Your task to perform on an android device: Search for flights from Barcelona to Boston Image 0: 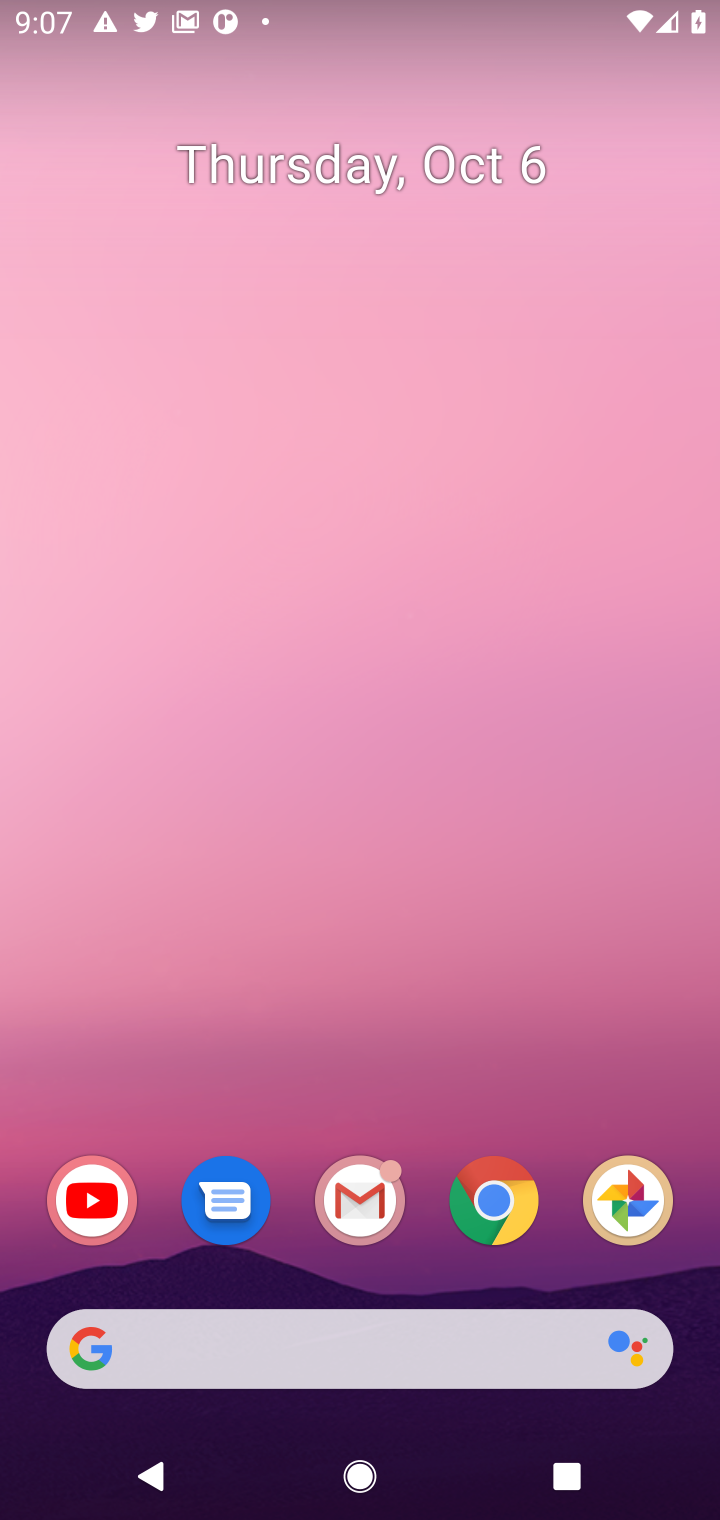
Step 0: click (510, 1199)
Your task to perform on an android device: Search for flights from Barcelona to Boston Image 1: 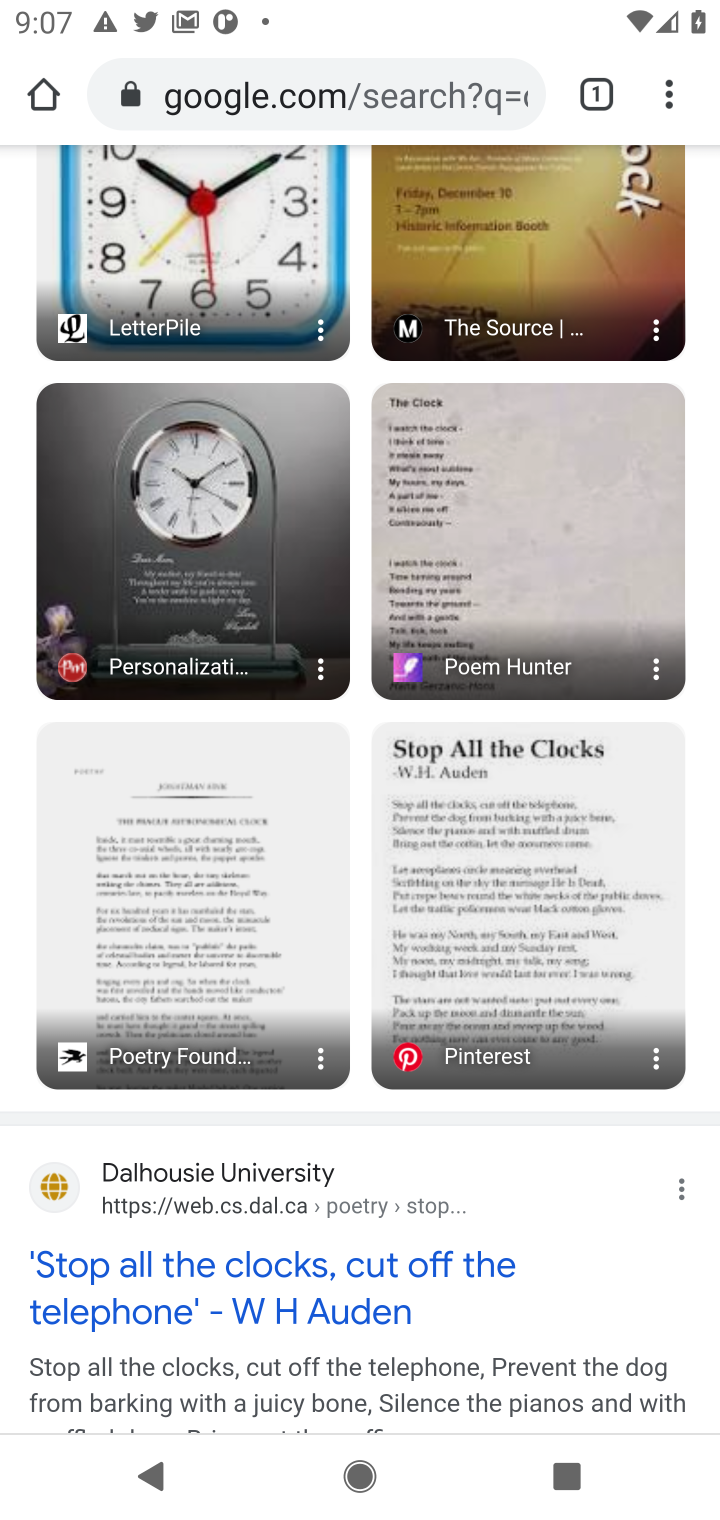
Step 1: click (301, 91)
Your task to perform on an android device: Search for flights from Barcelona to Boston Image 2: 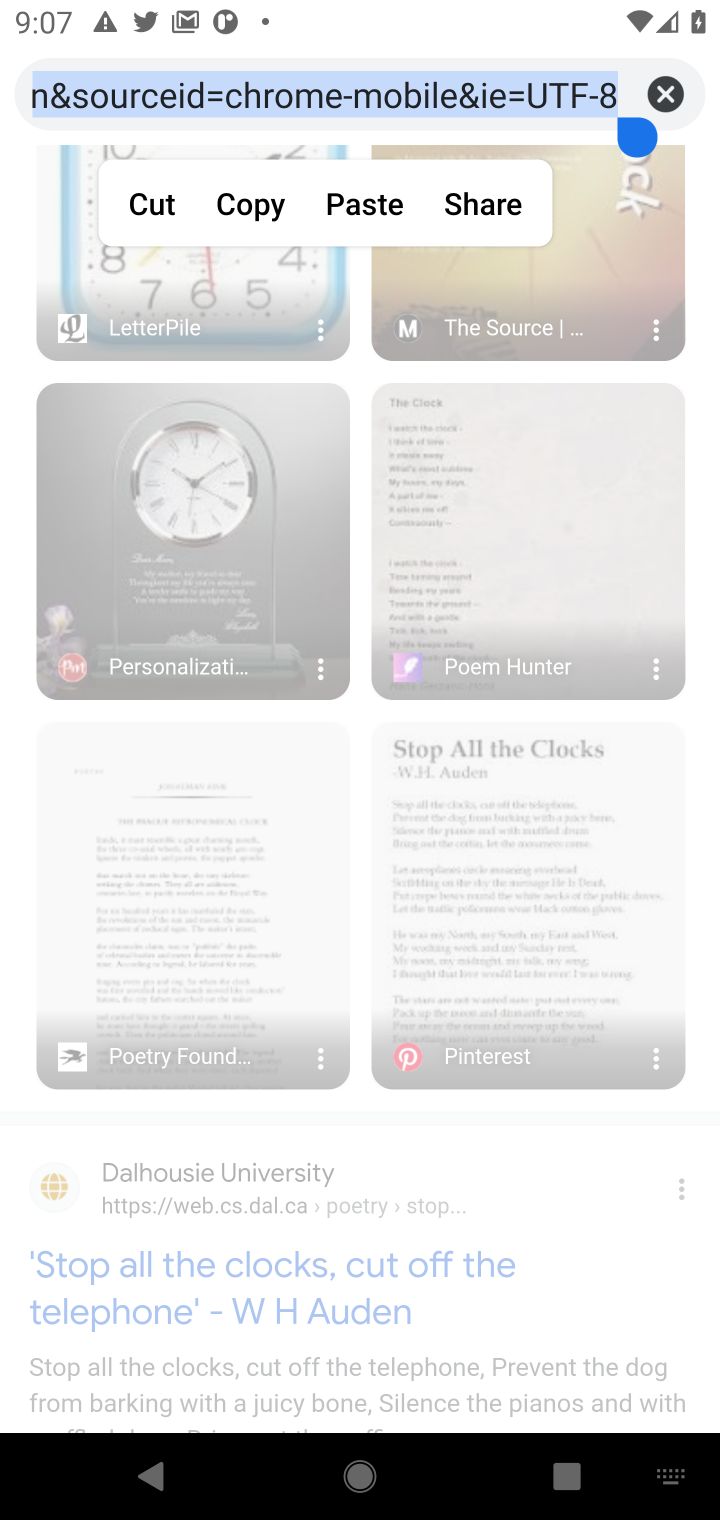
Step 2: click (654, 81)
Your task to perform on an android device: Search for flights from Barcelona to Boston Image 3: 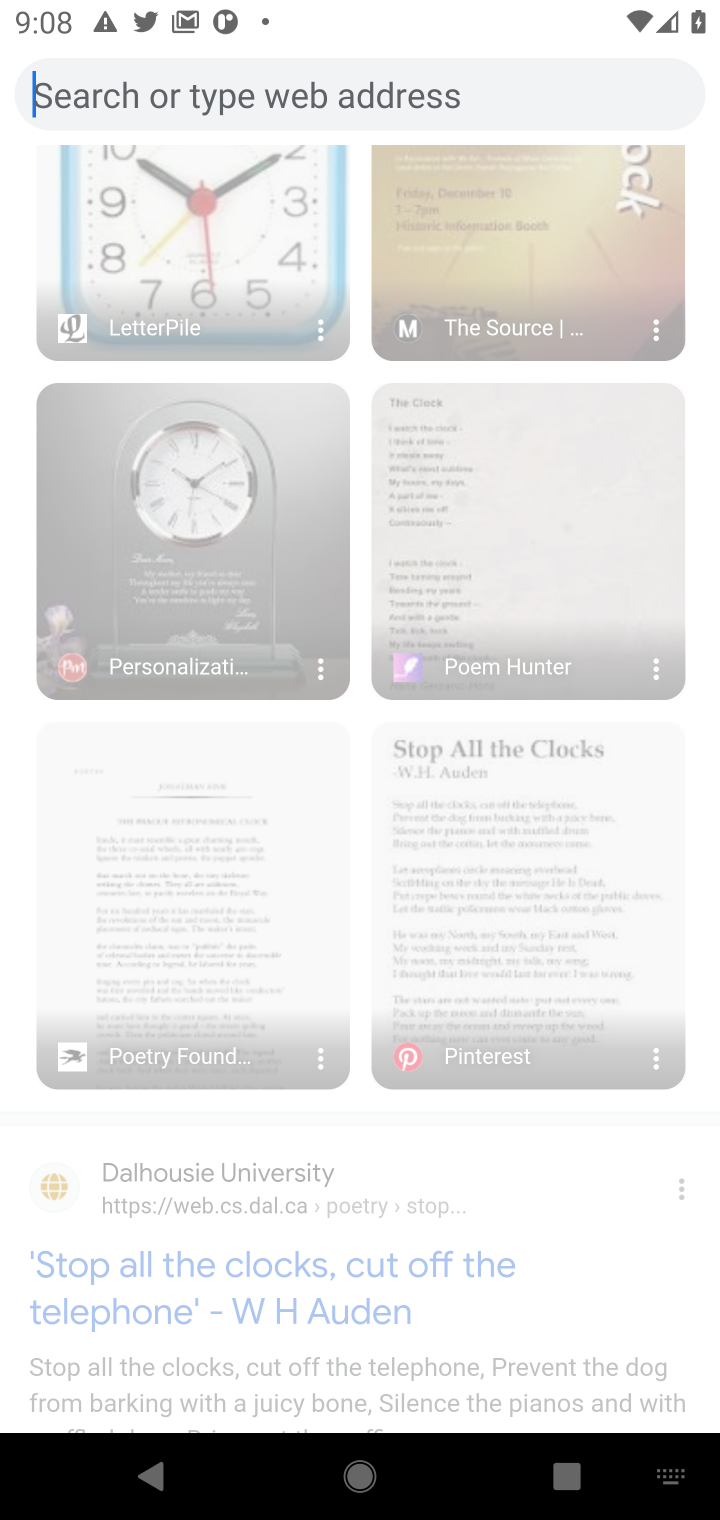
Step 3: type "flight from barcelona to boston"
Your task to perform on an android device: Search for flights from Barcelona to Boston Image 4: 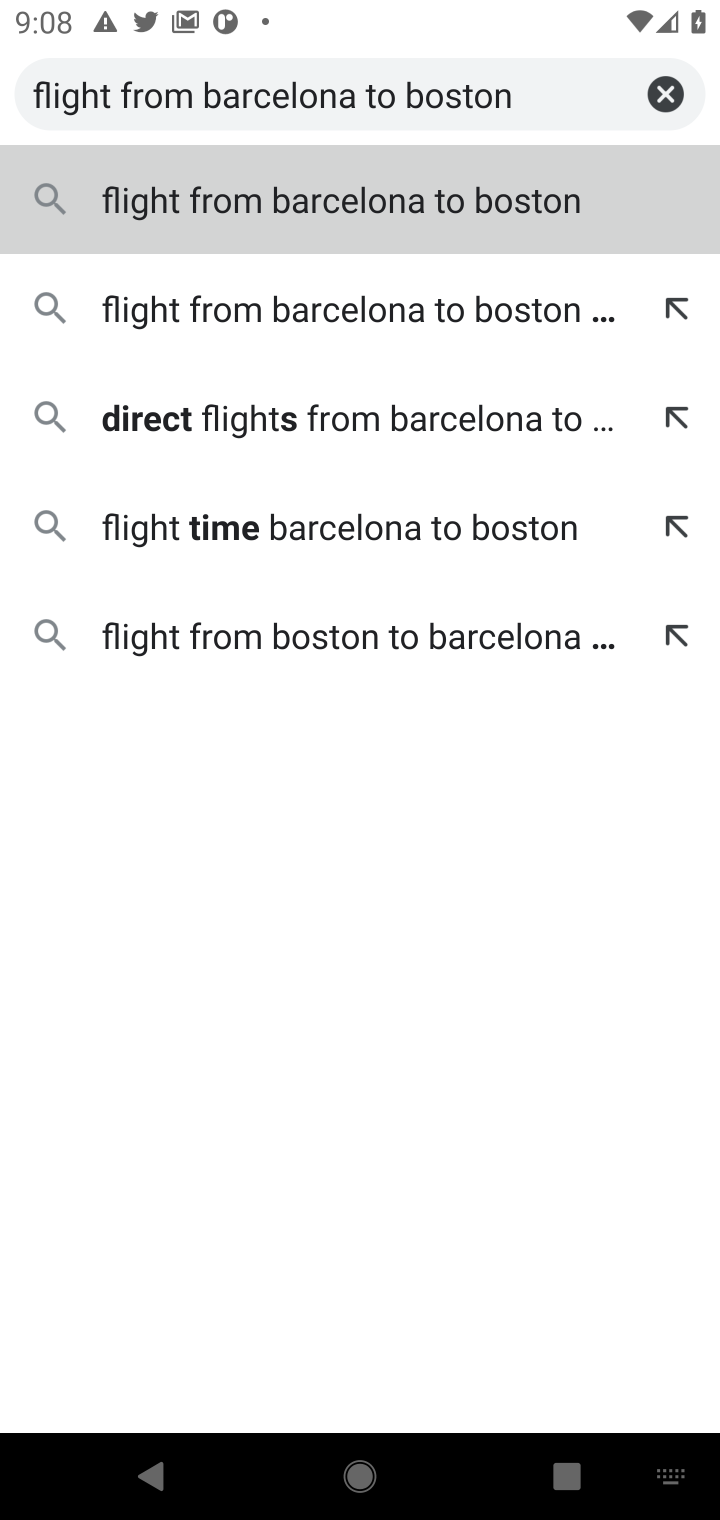
Step 4: click (406, 200)
Your task to perform on an android device: Search for flights from Barcelona to Boston Image 5: 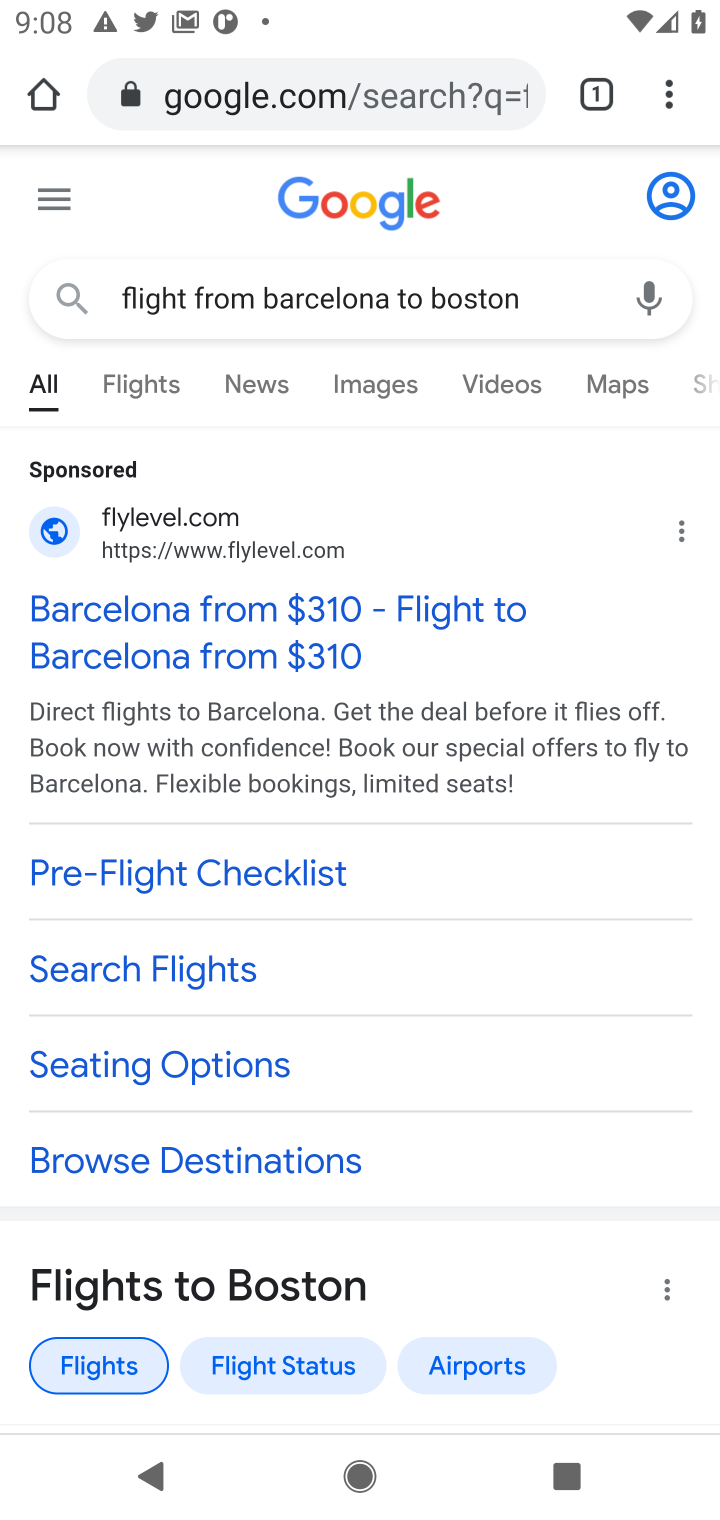
Step 5: click (195, 966)
Your task to perform on an android device: Search for flights from Barcelona to Boston Image 6: 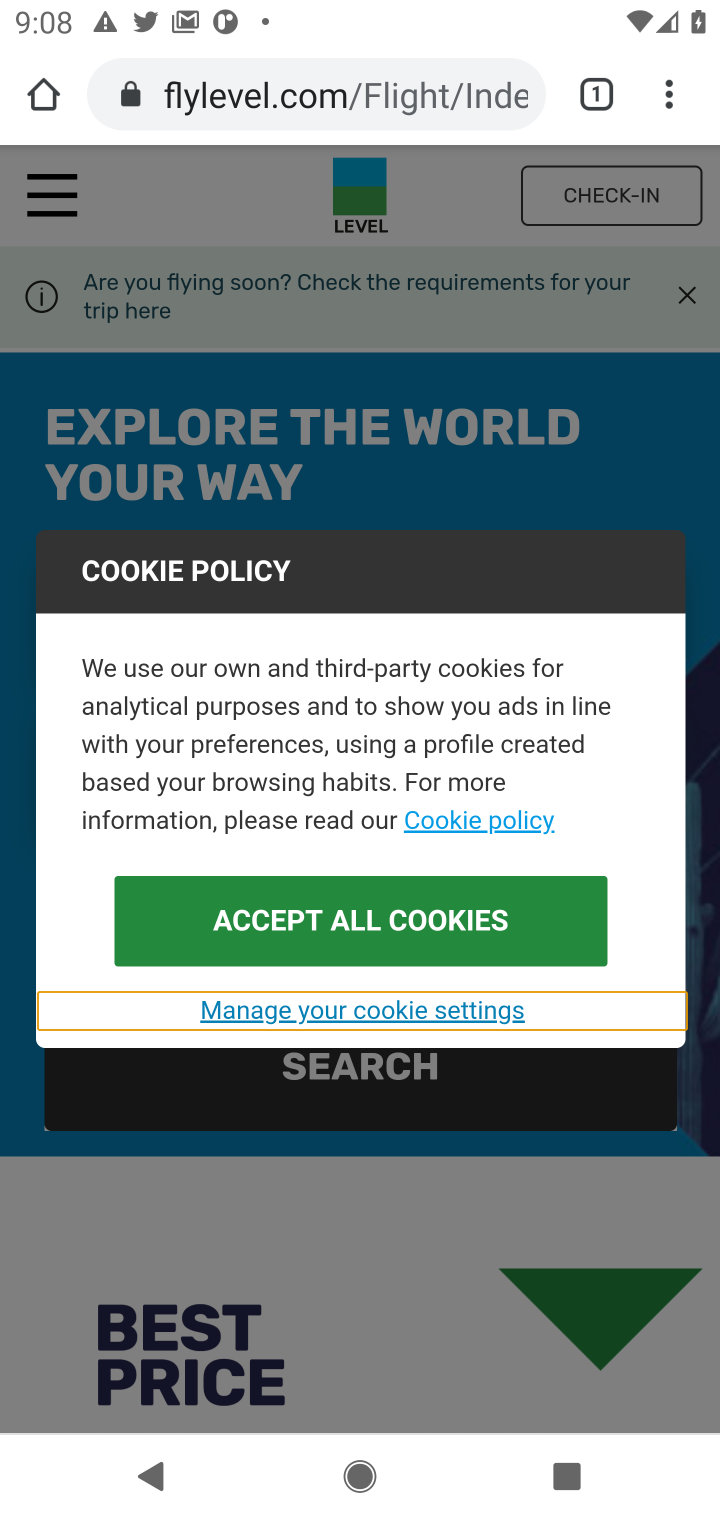
Step 6: click (360, 950)
Your task to perform on an android device: Search for flights from Barcelona to Boston Image 7: 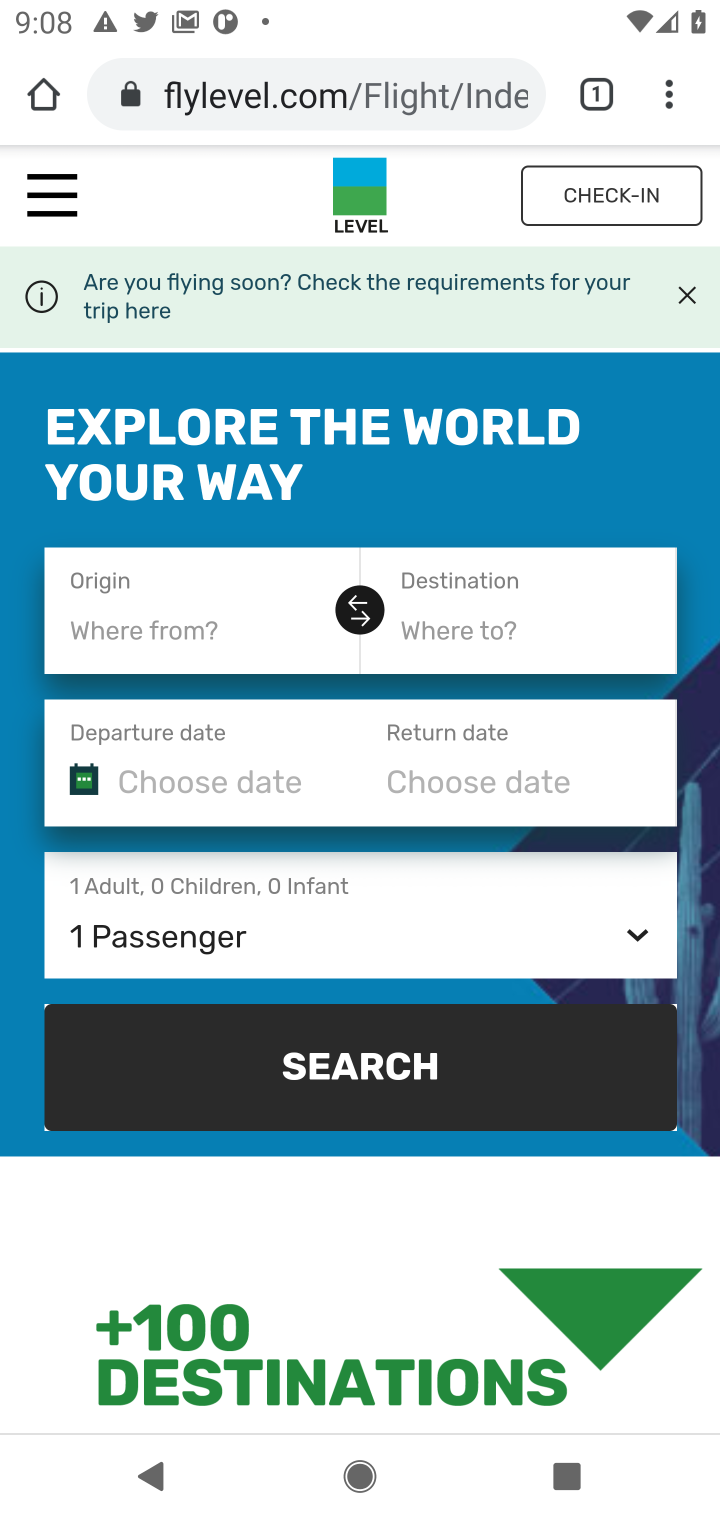
Step 7: click (174, 625)
Your task to perform on an android device: Search for flights from Barcelona to Boston Image 8: 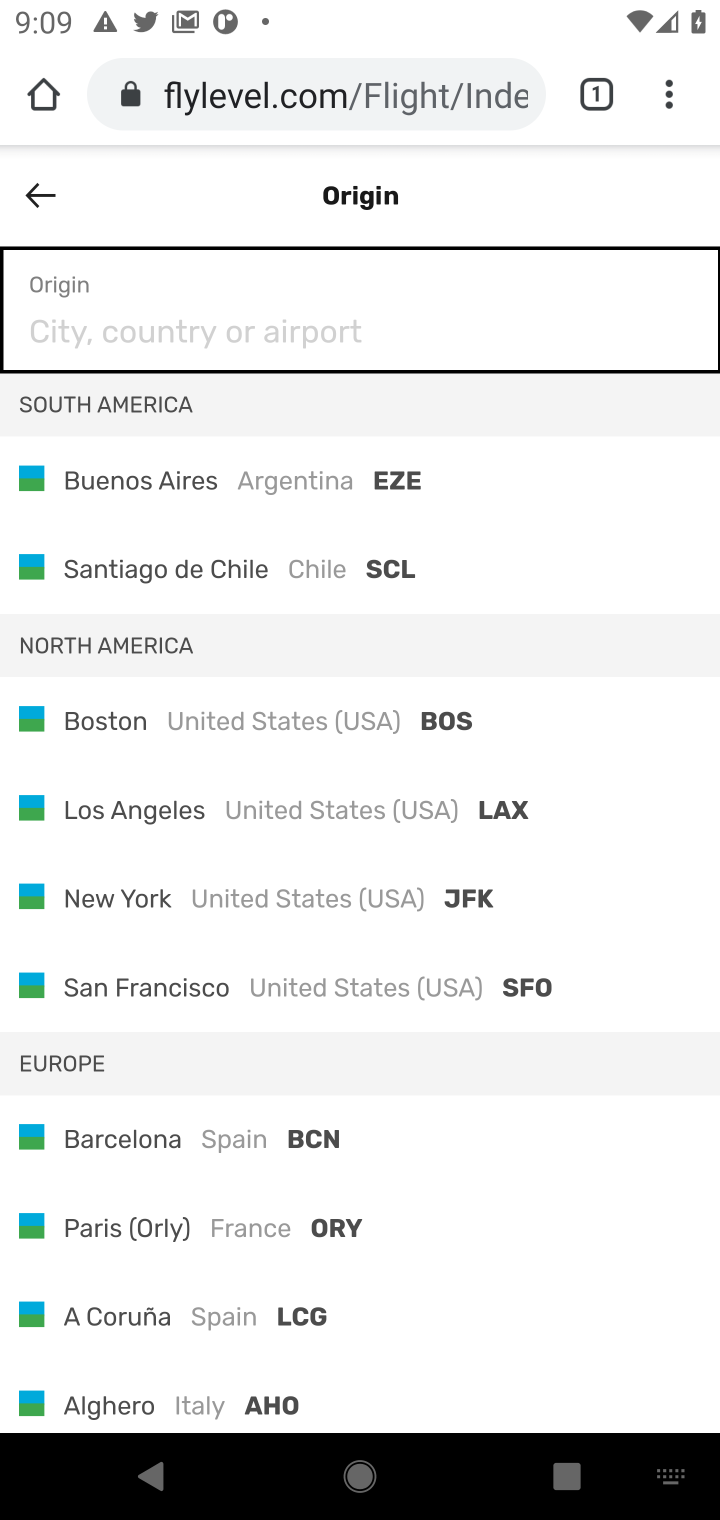
Step 8: type "barcelona"
Your task to perform on an android device: Search for flights from Barcelona to Boston Image 9: 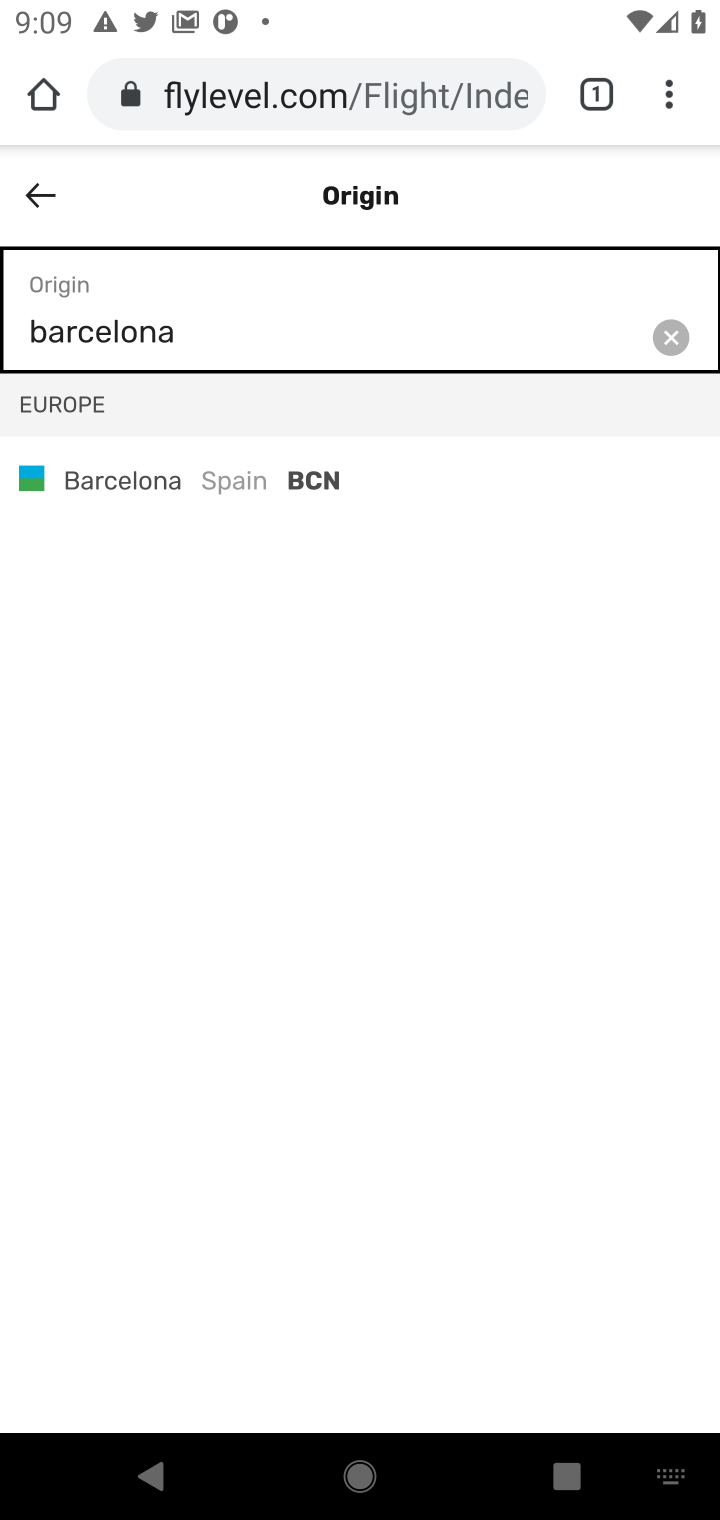
Step 9: click (219, 483)
Your task to perform on an android device: Search for flights from Barcelona to Boston Image 10: 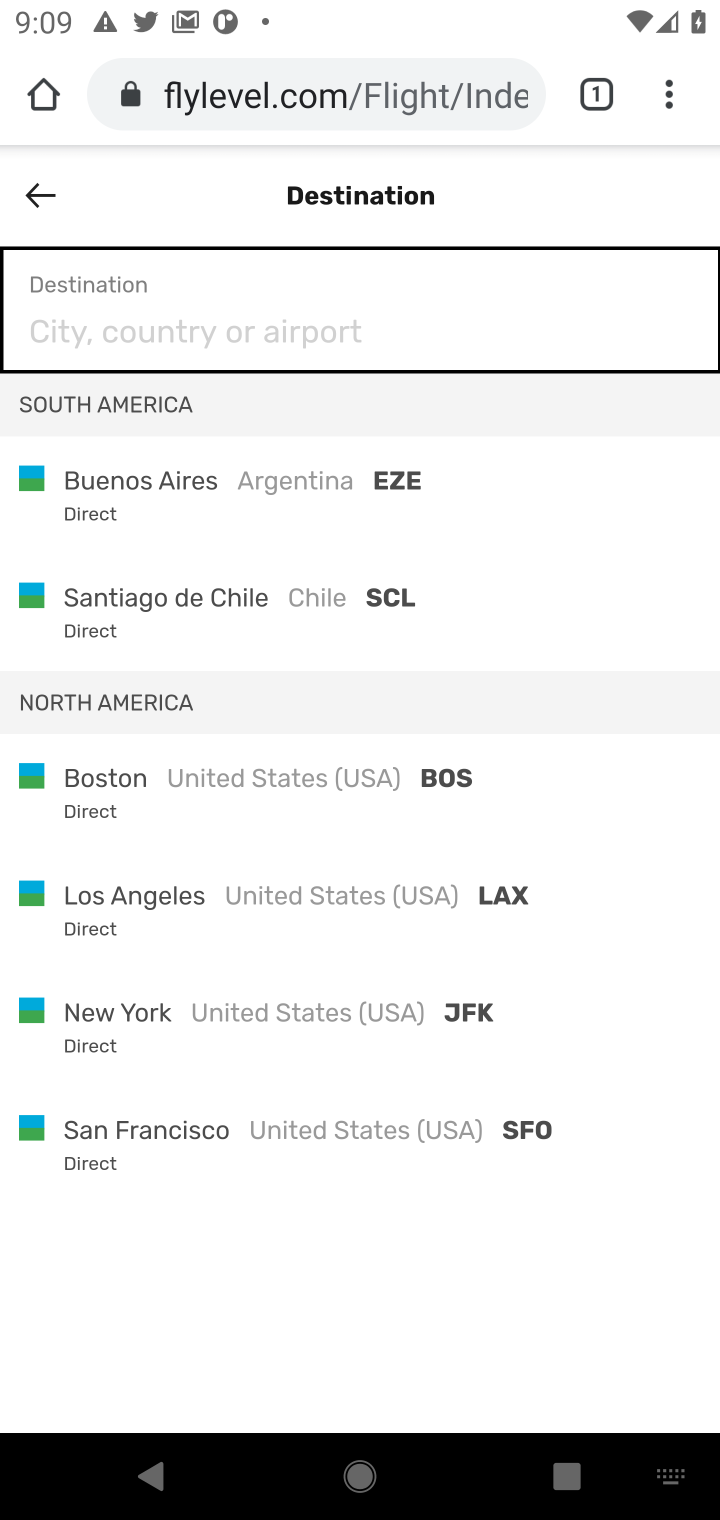
Step 10: type "boston"
Your task to perform on an android device: Search for flights from Barcelona to Boston Image 11: 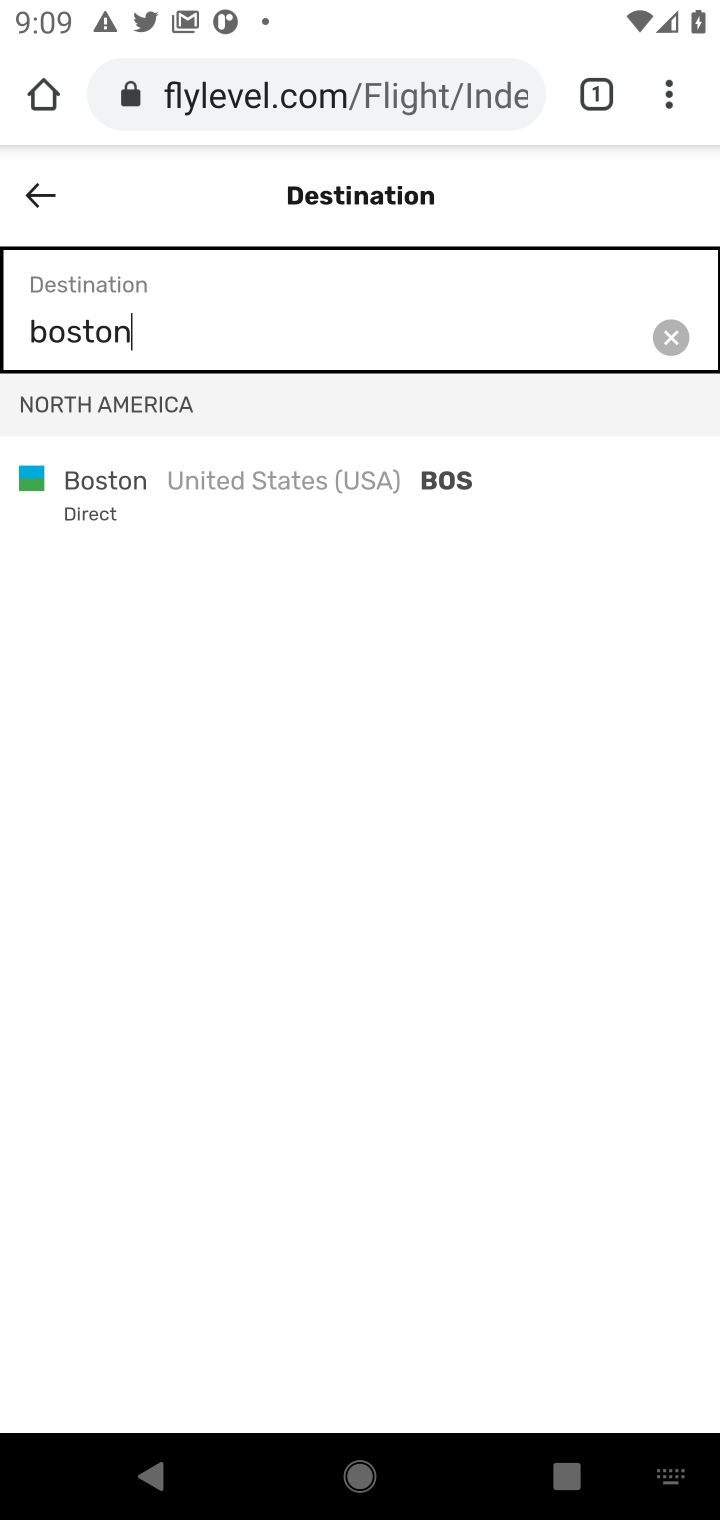
Step 11: type ""
Your task to perform on an android device: Search for flights from Barcelona to Boston Image 12: 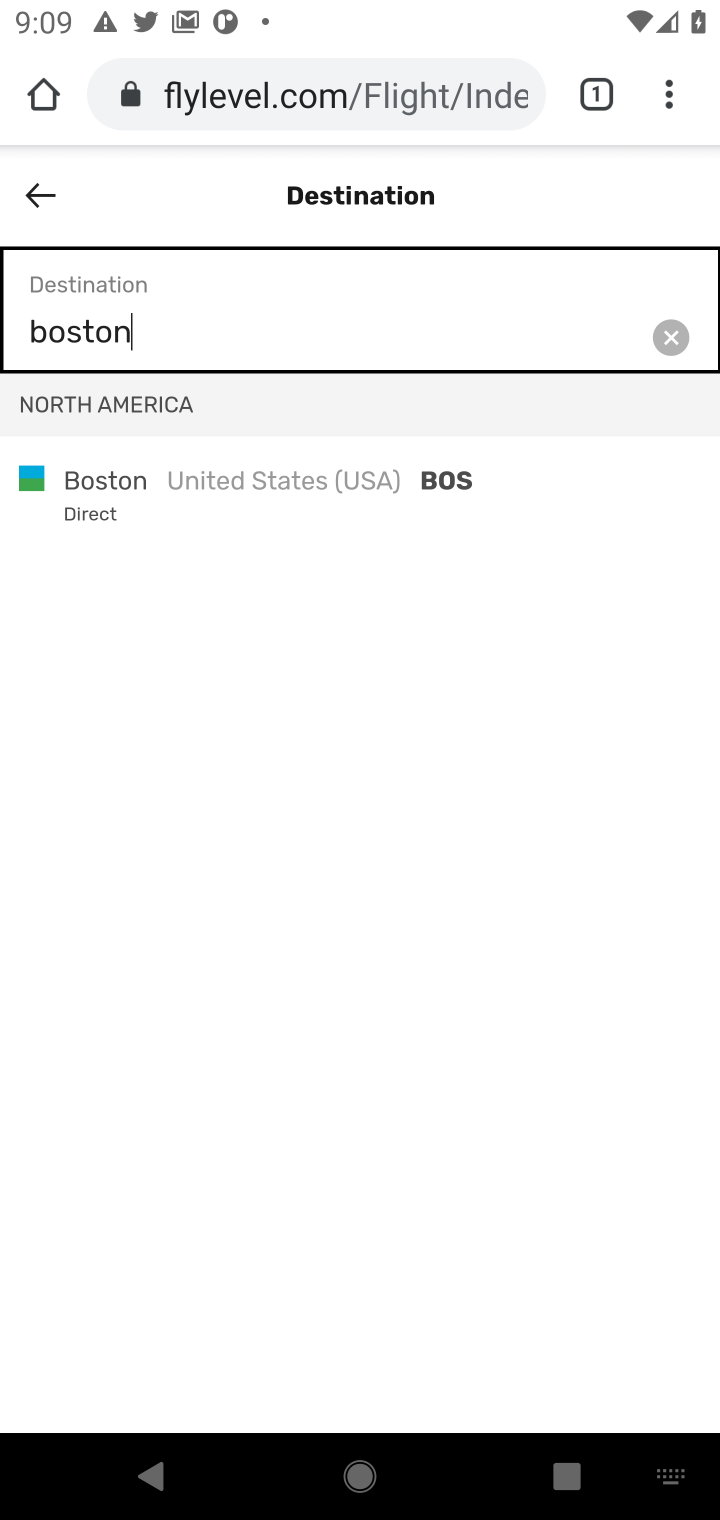
Step 12: click (190, 480)
Your task to perform on an android device: Search for flights from Barcelona to Boston Image 13: 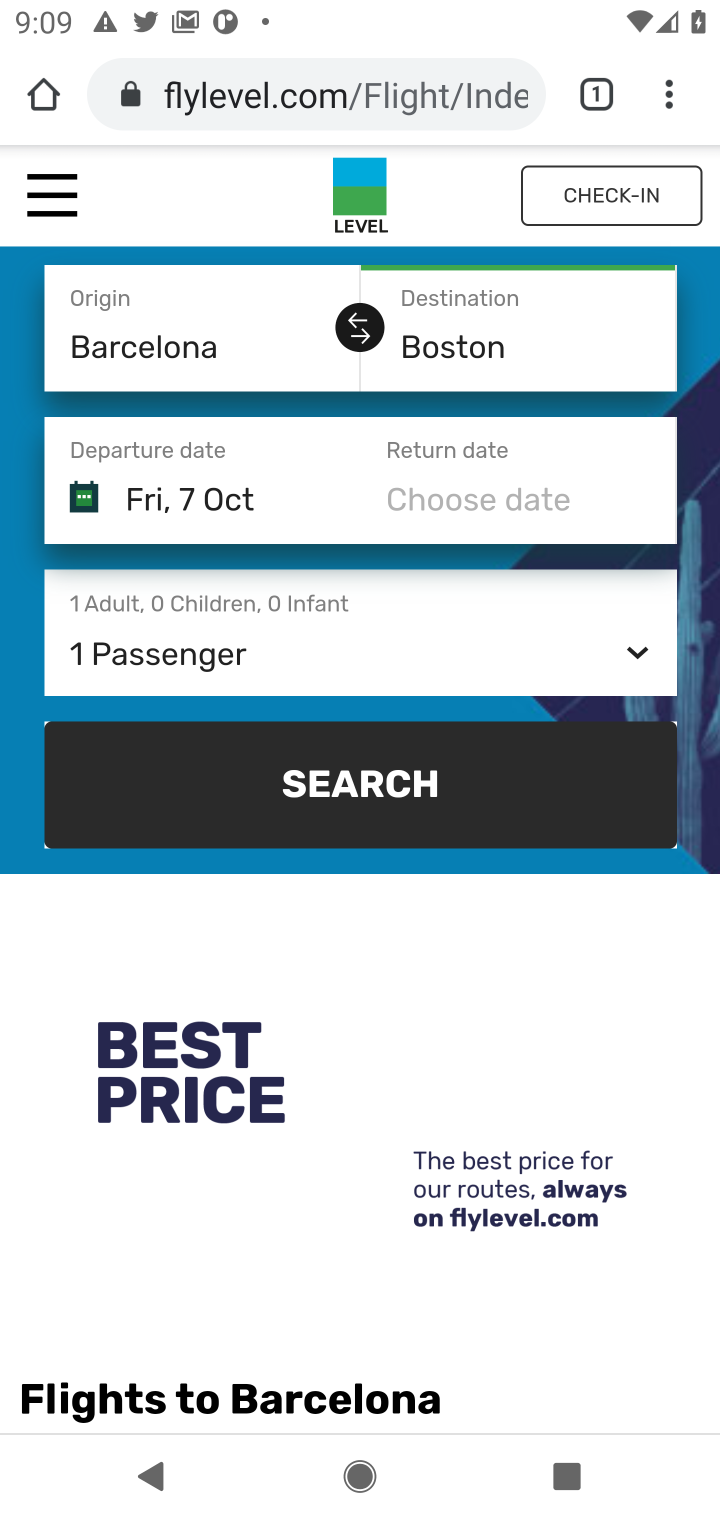
Step 13: click (313, 780)
Your task to perform on an android device: Search for flights from Barcelona to Boston Image 14: 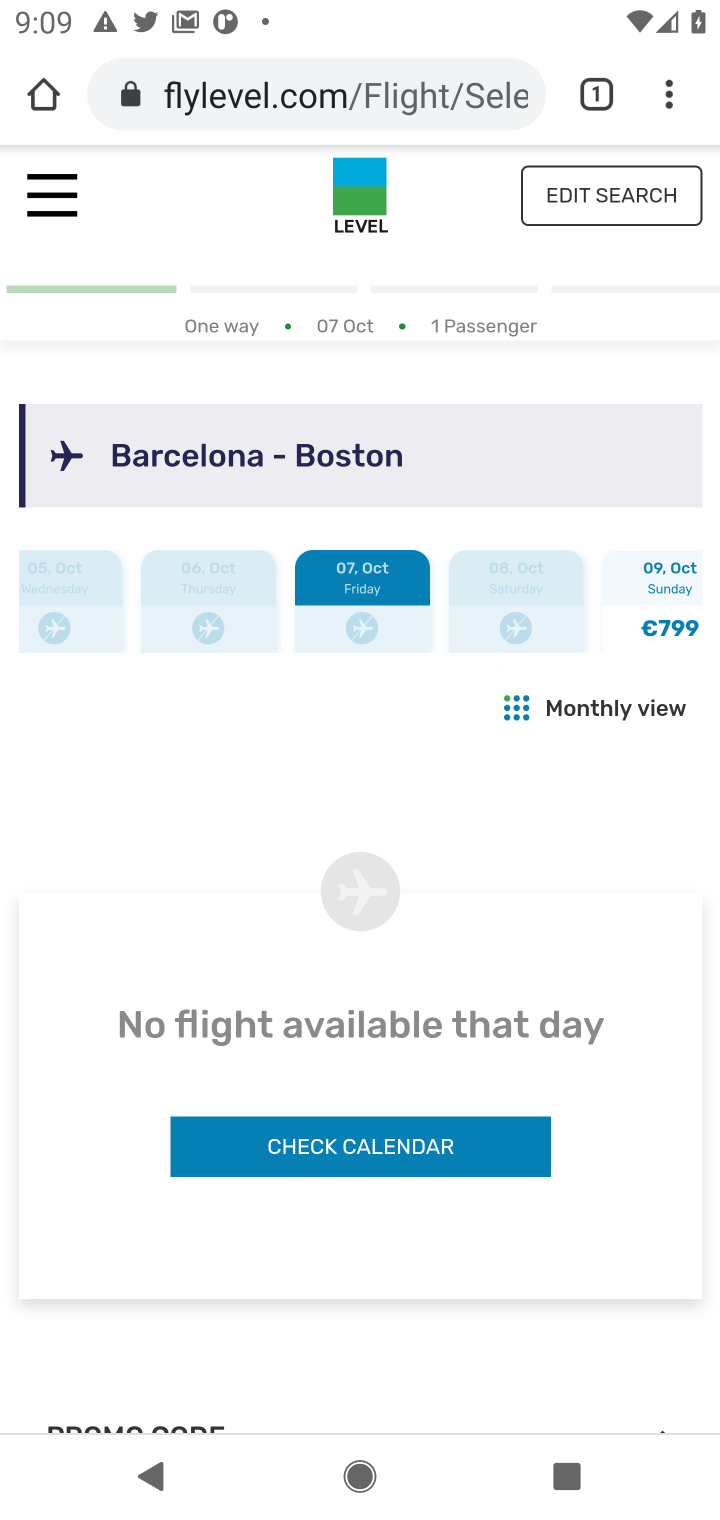
Step 14: click (502, 862)
Your task to perform on an android device: Search for flights from Barcelona to Boston Image 15: 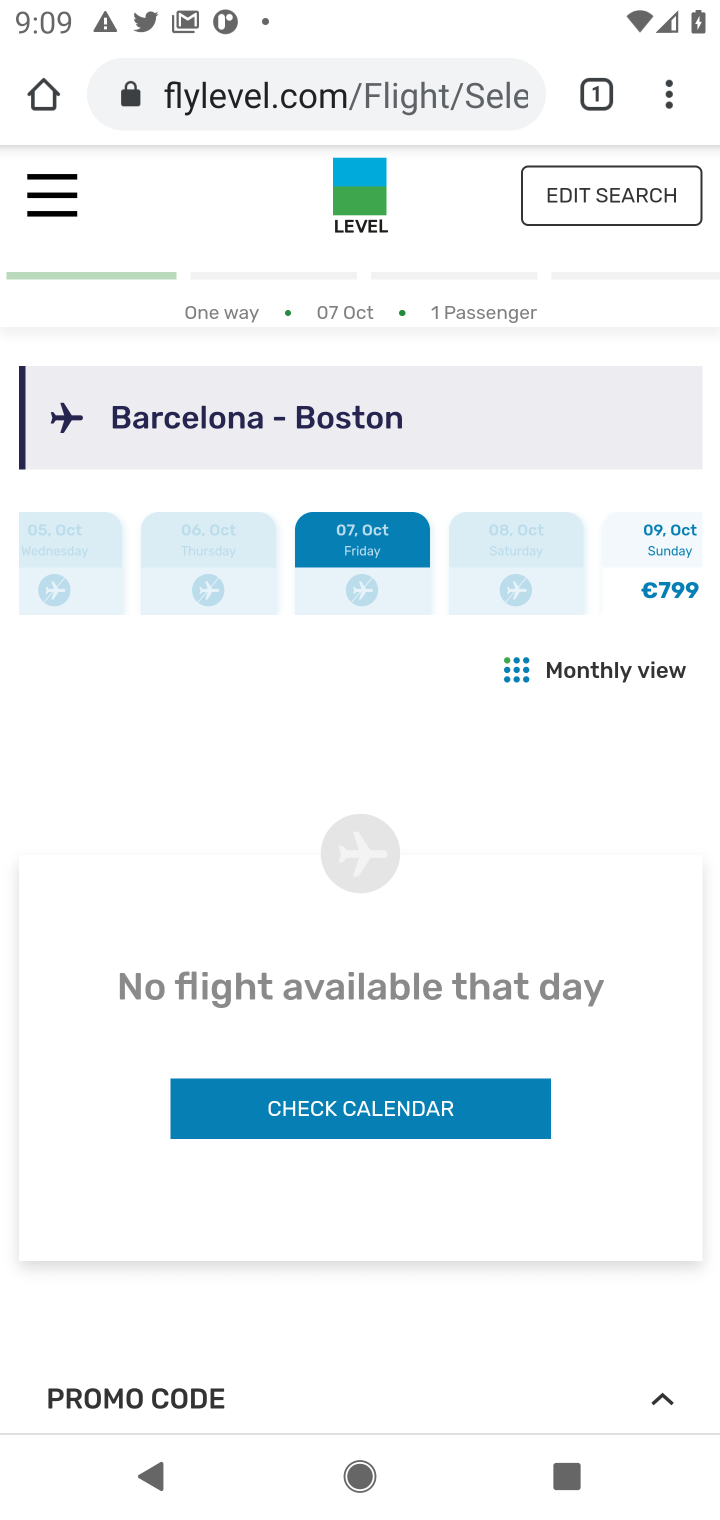
Step 15: click (380, 1109)
Your task to perform on an android device: Search for flights from Barcelona to Boston Image 16: 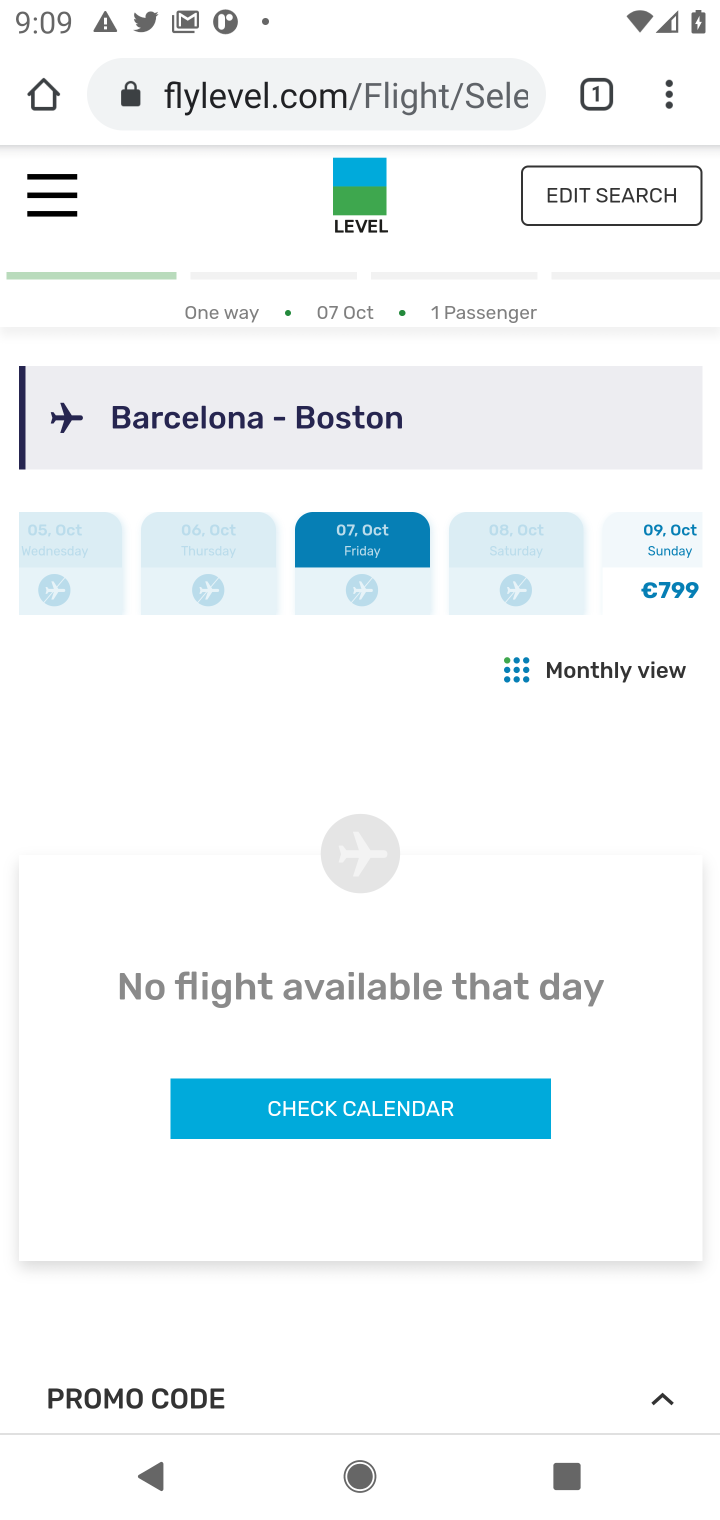
Step 16: click (649, 554)
Your task to perform on an android device: Search for flights from Barcelona to Boston Image 17: 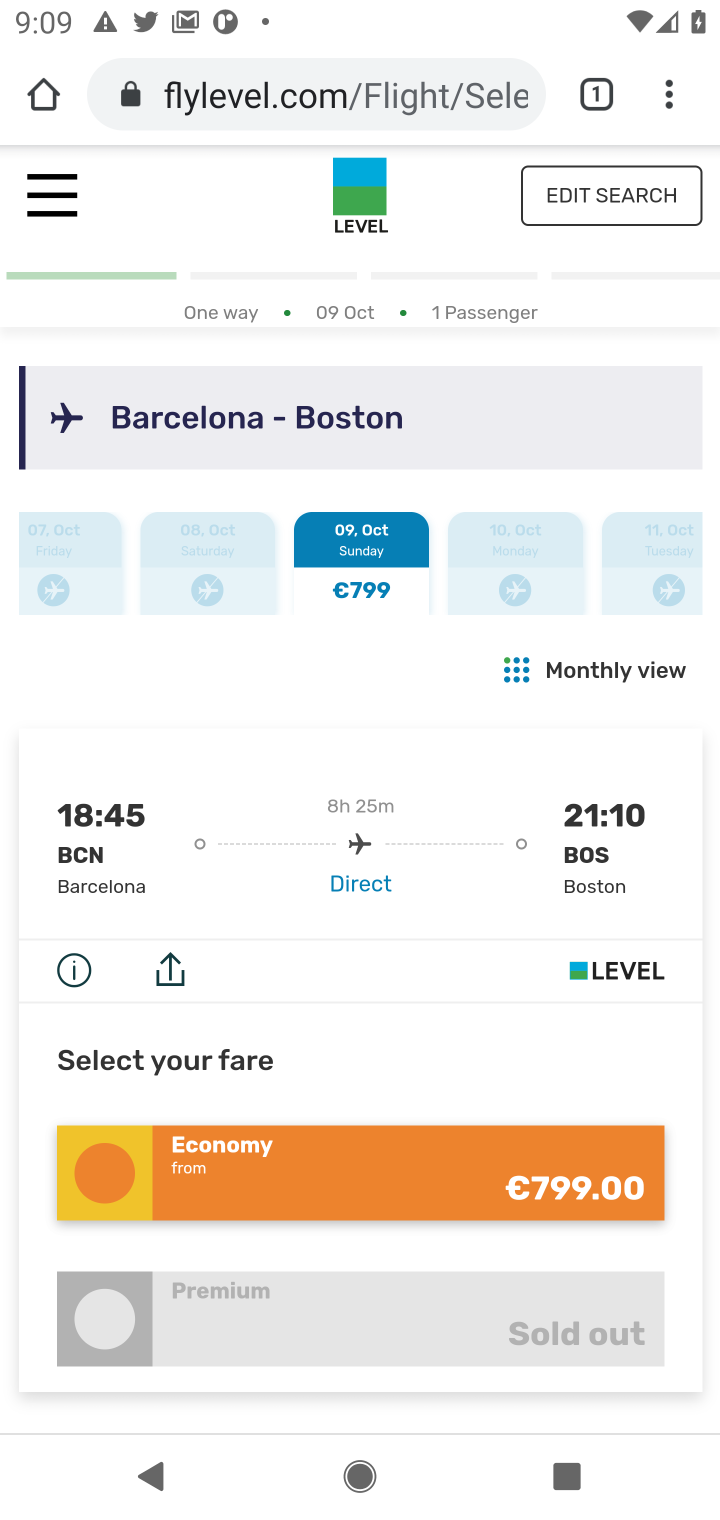
Step 17: task complete